Your task to perform on an android device: Open settings Image 0: 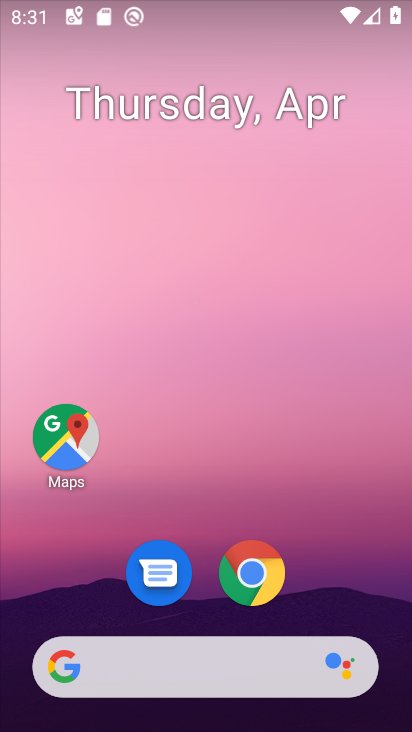
Step 0: drag from (186, 491) to (256, 143)
Your task to perform on an android device: Open settings Image 1: 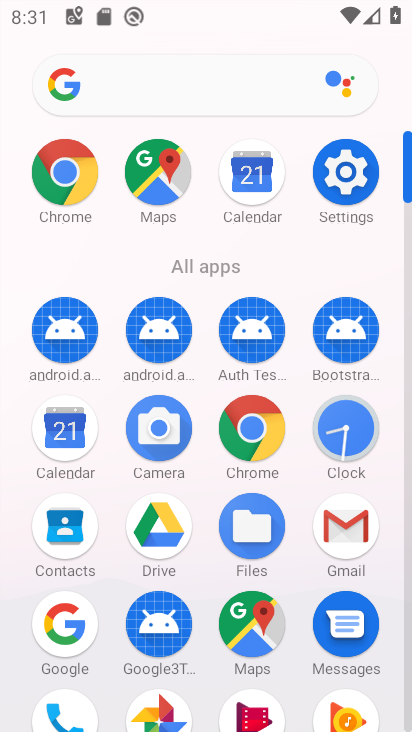
Step 1: click (345, 170)
Your task to perform on an android device: Open settings Image 2: 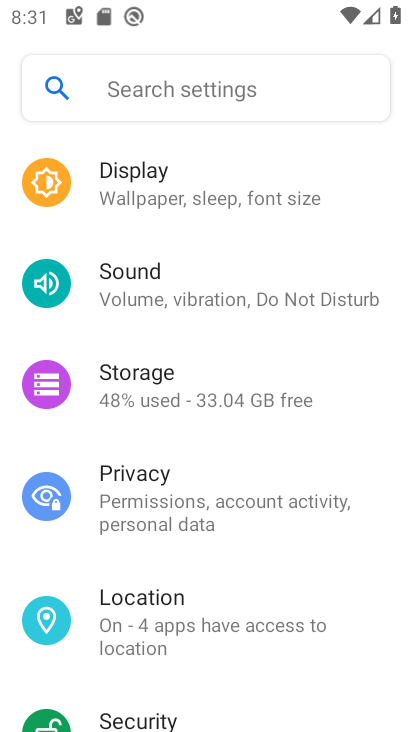
Step 2: task complete